Your task to perform on an android device: Search for bose quietcomfort 35 on costco, select the first entry, and add it to the cart. Image 0: 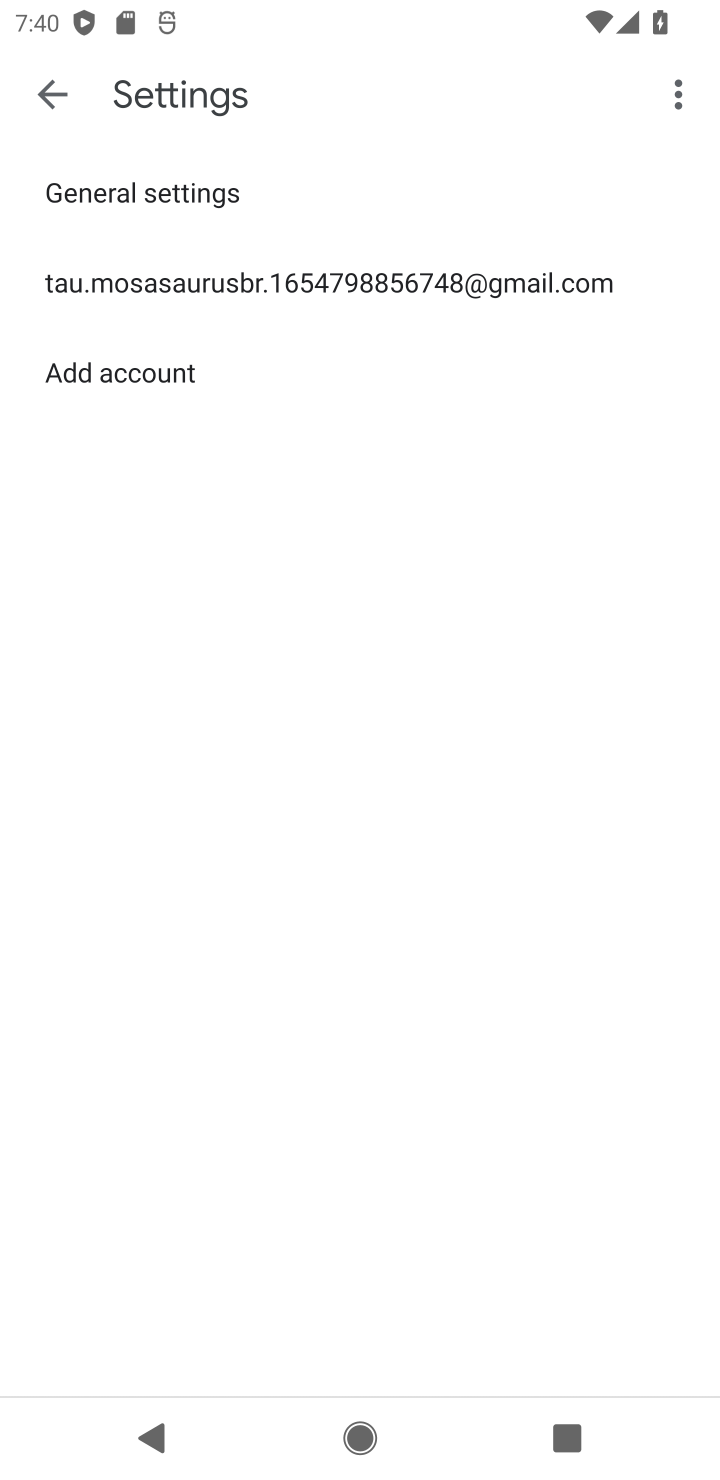
Step 0: task impossible